Your task to perform on an android device: Open eBay Image 0: 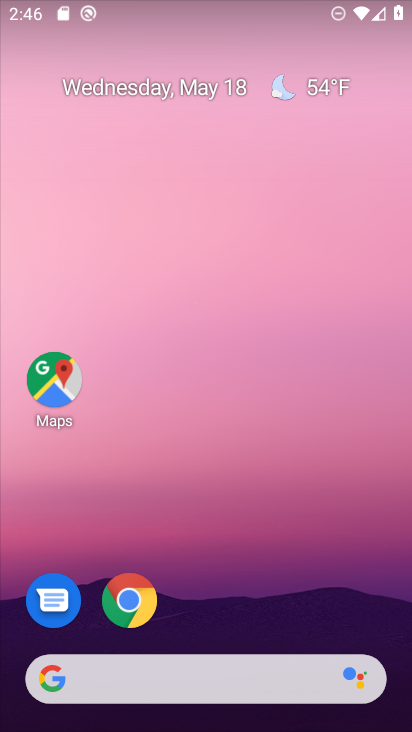
Step 0: click (127, 587)
Your task to perform on an android device: Open eBay Image 1: 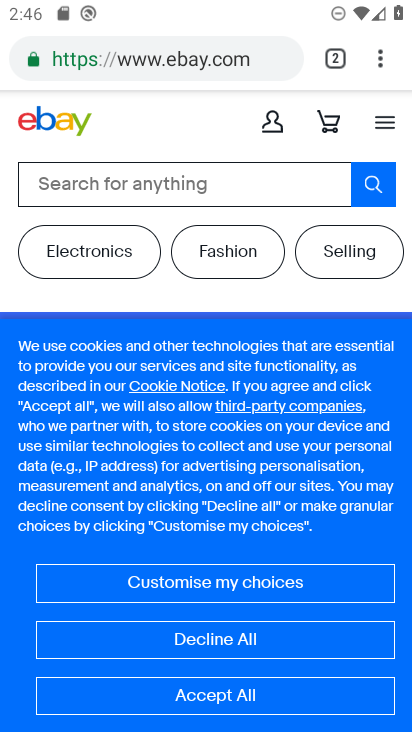
Step 1: task complete